Your task to perform on an android device: open sync settings in chrome Image 0: 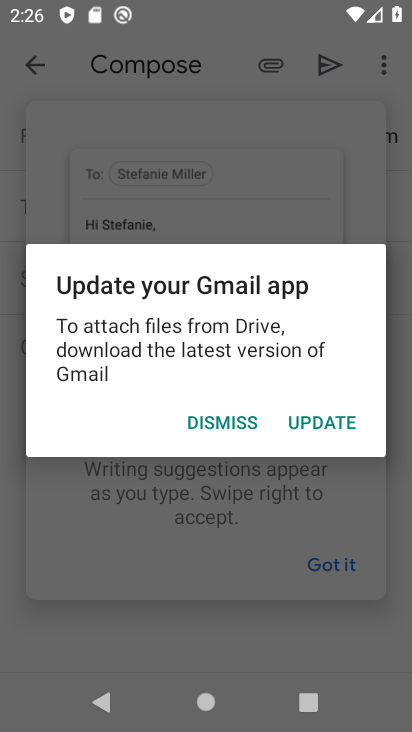
Step 0: click (239, 428)
Your task to perform on an android device: open sync settings in chrome Image 1: 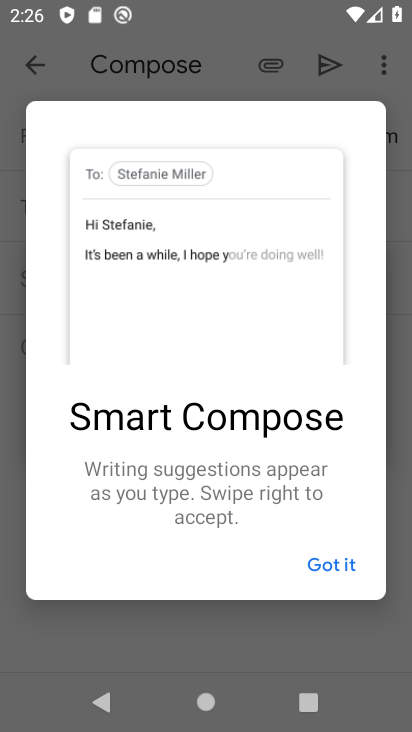
Step 1: press home button
Your task to perform on an android device: open sync settings in chrome Image 2: 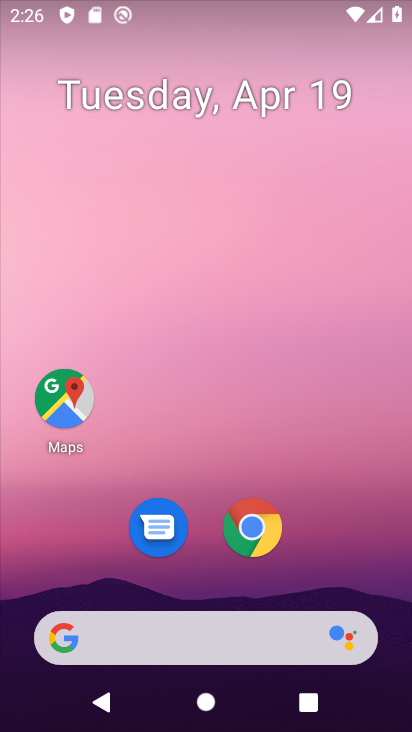
Step 2: click (246, 536)
Your task to perform on an android device: open sync settings in chrome Image 3: 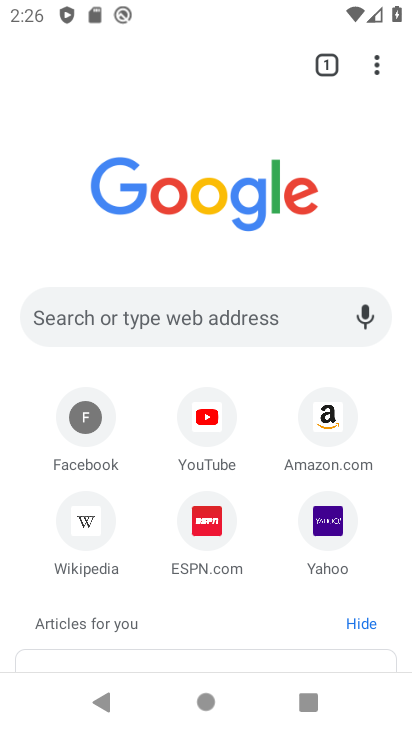
Step 3: click (377, 61)
Your task to perform on an android device: open sync settings in chrome Image 4: 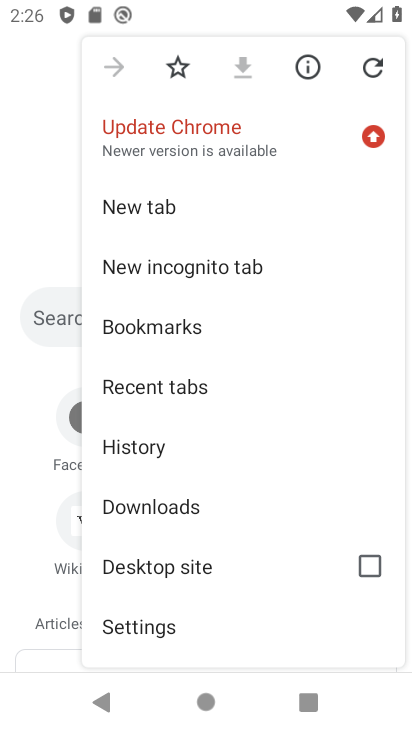
Step 4: click (131, 634)
Your task to perform on an android device: open sync settings in chrome Image 5: 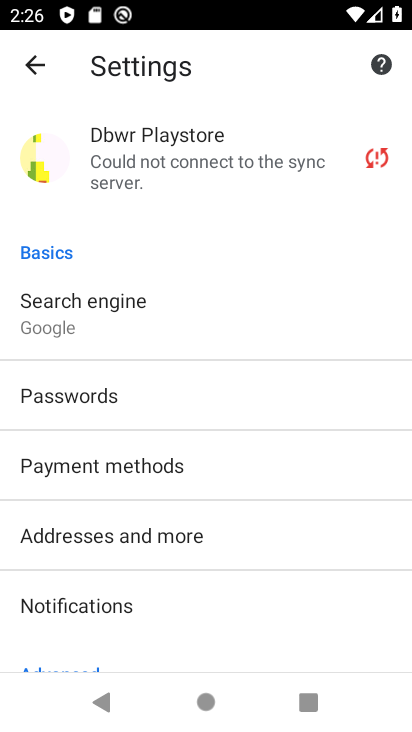
Step 5: click (219, 145)
Your task to perform on an android device: open sync settings in chrome Image 6: 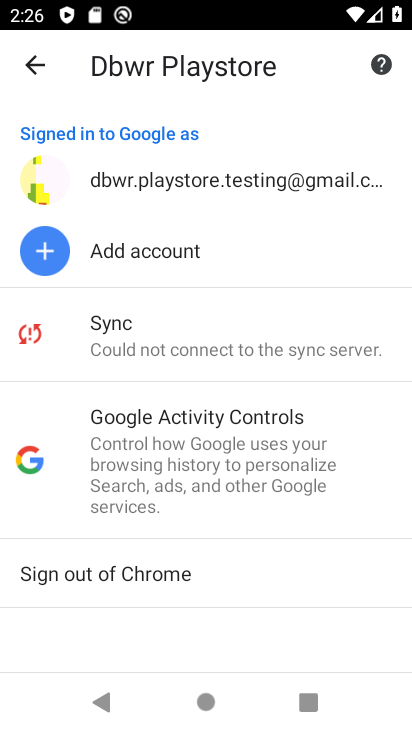
Step 6: click (199, 342)
Your task to perform on an android device: open sync settings in chrome Image 7: 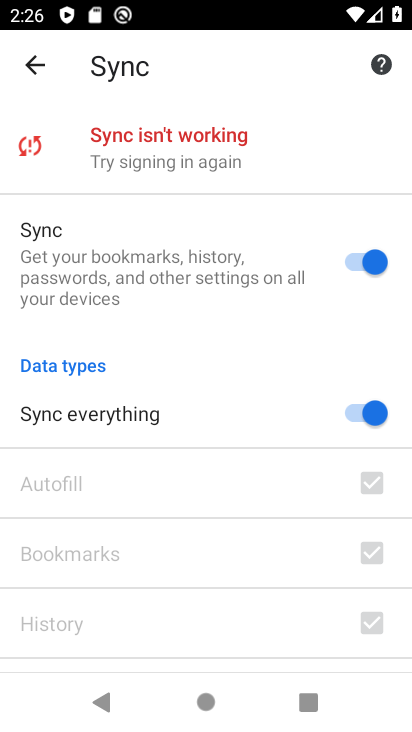
Step 7: click (182, 137)
Your task to perform on an android device: open sync settings in chrome Image 8: 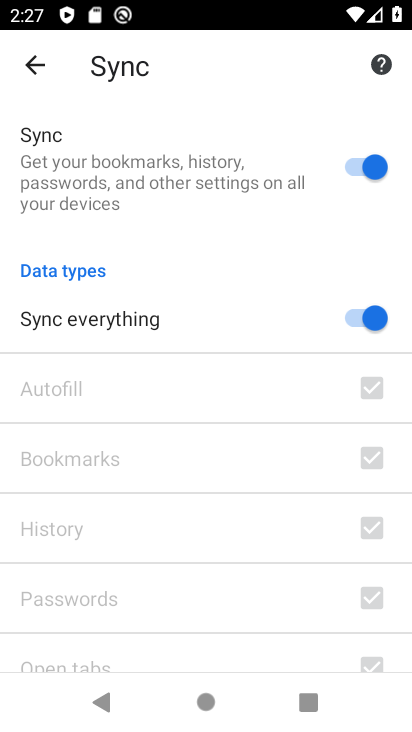
Step 8: task complete